Your task to perform on an android device: allow cookies in the chrome app Image 0: 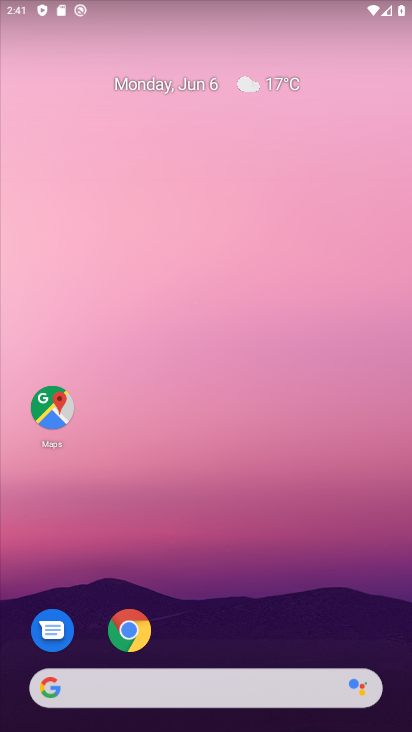
Step 0: click (141, 629)
Your task to perform on an android device: allow cookies in the chrome app Image 1: 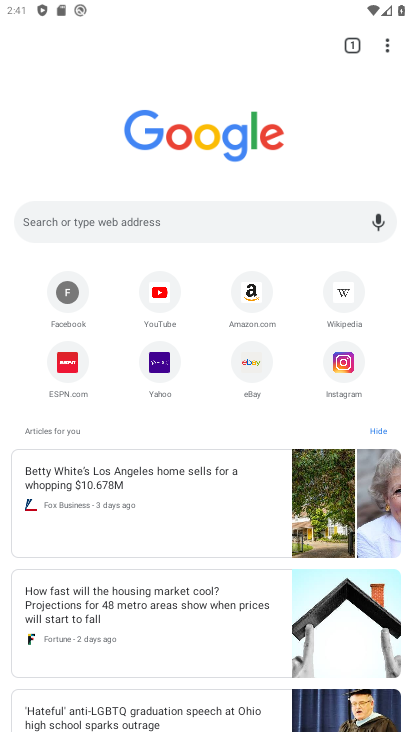
Step 1: drag from (390, 42) to (235, 378)
Your task to perform on an android device: allow cookies in the chrome app Image 2: 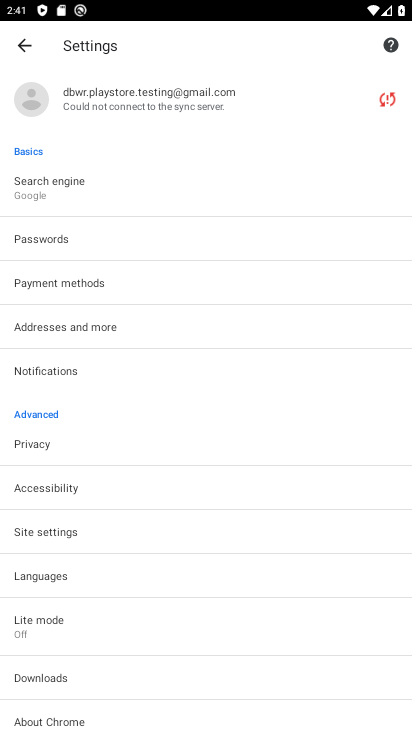
Step 2: click (46, 529)
Your task to perform on an android device: allow cookies in the chrome app Image 3: 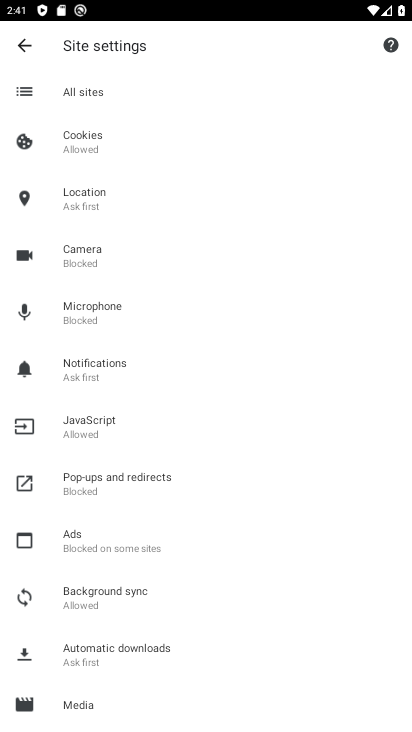
Step 3: click (88, 137)
Your task to perform on an android device: allow cookies in the chrome app Image 4: 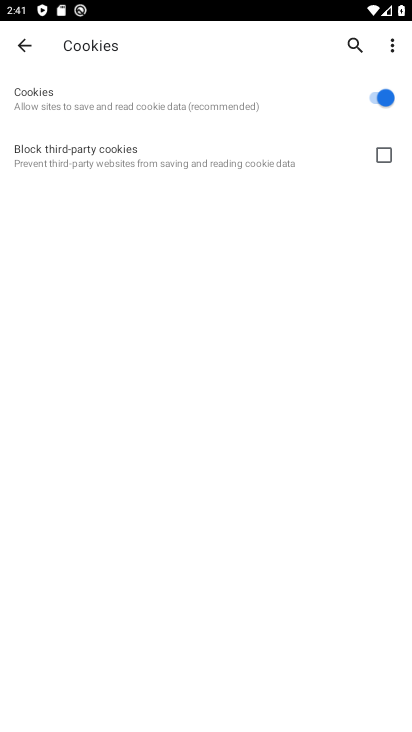
Step 4: task complete